Your task to perform on an android device: toggle priority inbox in the gmail app Image 0: 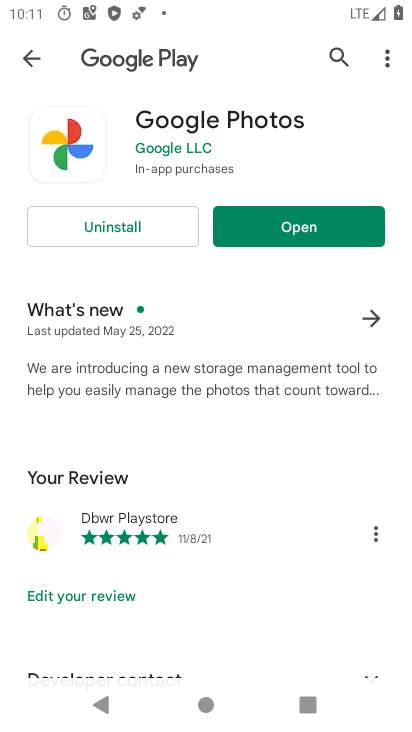
Step 0: press home button
Your task to perform on an android device: toggle priority inbox in the gmail app Image 1: 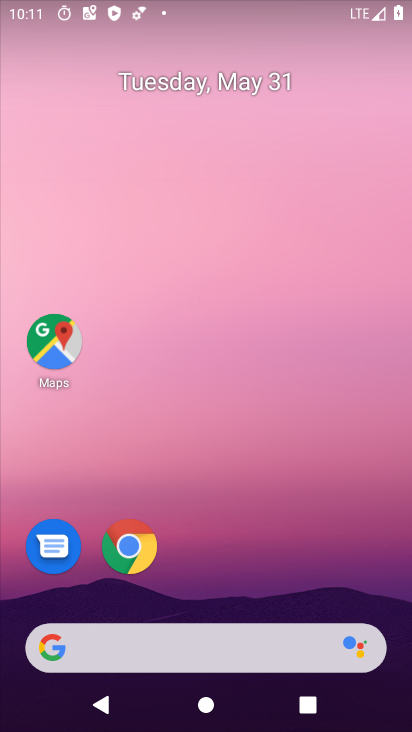
Step 1: drag from (247, 576) to (262, 129)
Your task to perform on an android device: toggle priority inbox in the gmail app Image 2: 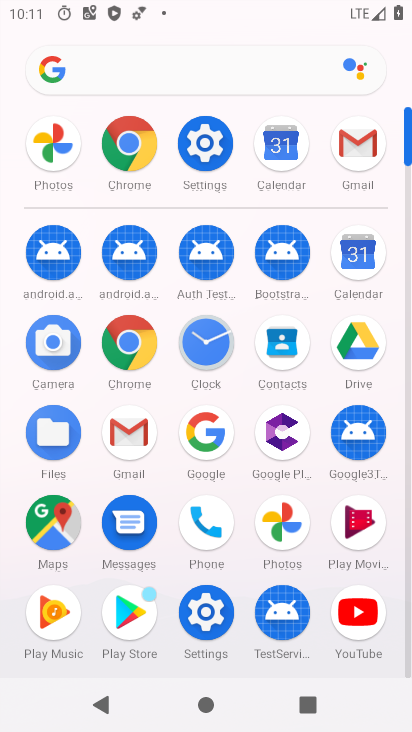
Step 2: click (355, 166)
Your task to perform on an android device: toggle priority inbox in the gmail app Image 3: 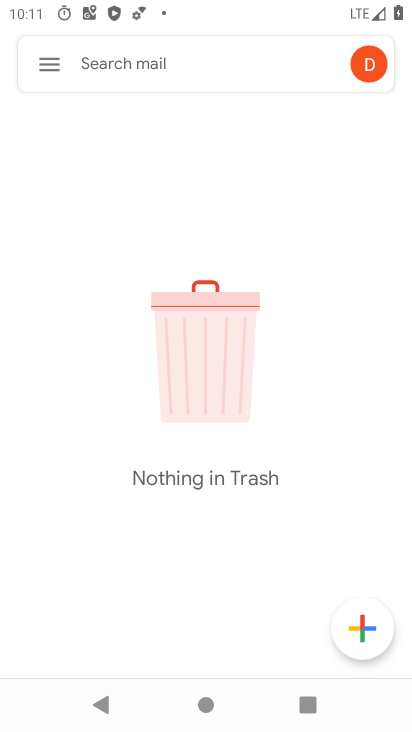
Step 3: click (52, 57)
Your task to perform on an android device: toggle priority inbox in the gmail app Image 4: 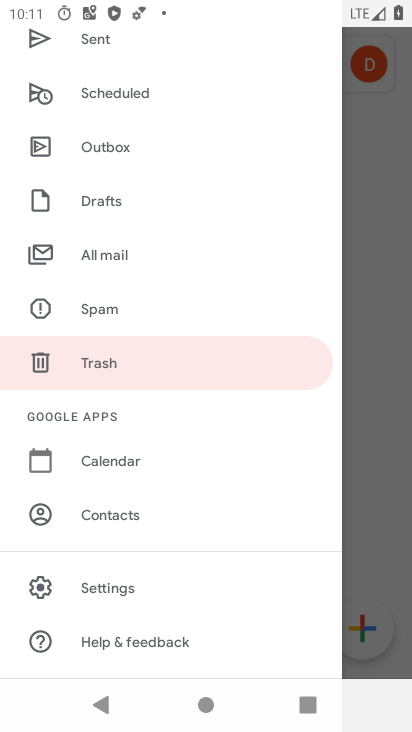
Step 4: click (84, 571)
Your task to perform on an android device: toggle priority inbox in the gmail app Image 5: 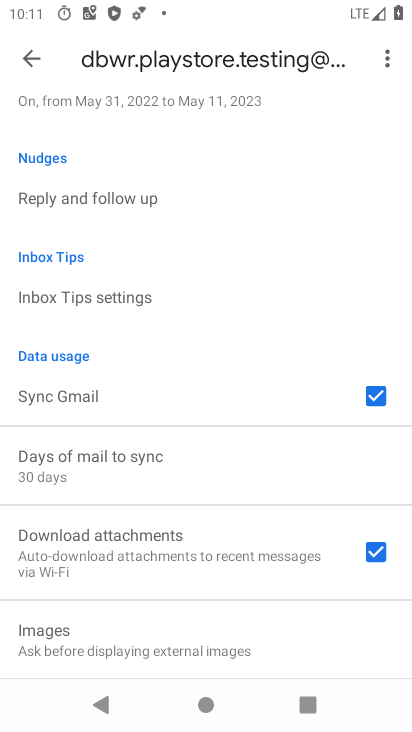
Step 5: drag from (170, 159) to (179, 429)
Your task to perform on an android device: toggle priority inbox in the gmail app Image 6: 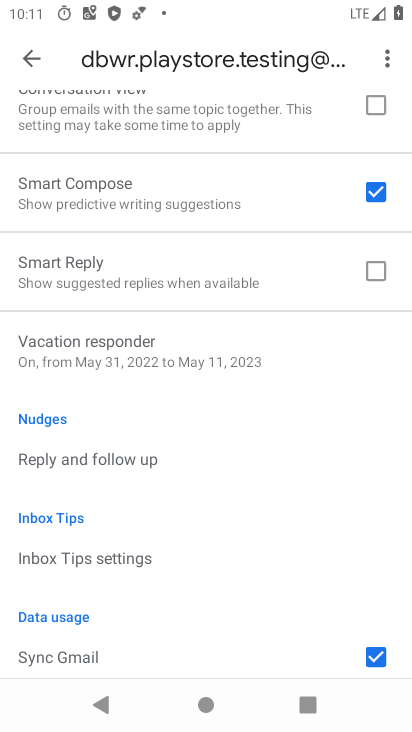
Step 6: drag from (251, 167) to (165, 640)
Your task to perform on an android device: toggle priority inbox in the gmail app Image 7: 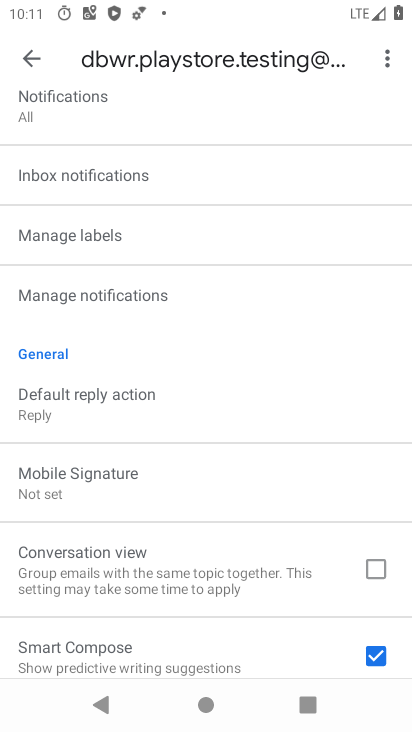
Step 7: drag from (207, 202) to (162, 680)
Your task to perform on an android device: toggle priority inbox in the gmail app Image 8: 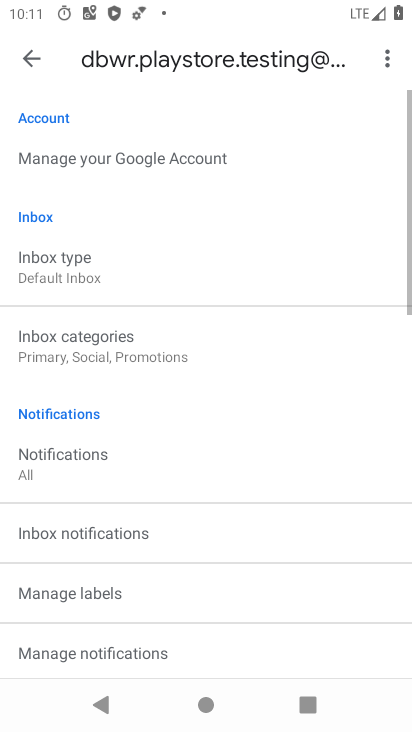
Step 8: drag from (204, 212) to (232, 683)
Your task to perform on an android device: toggle priority inbox in the gmail app Image 9: 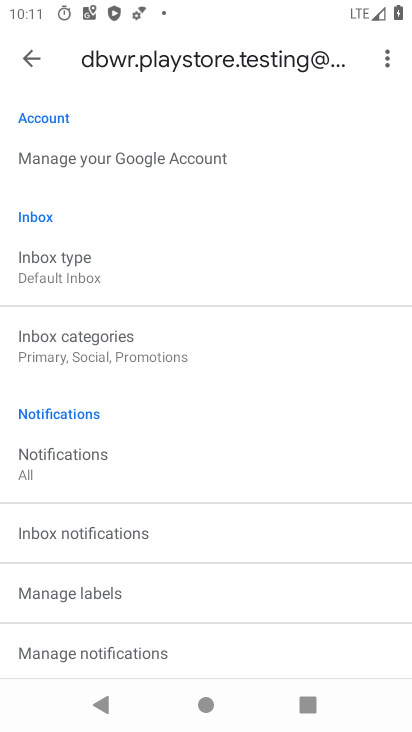
Step 9: click (92, 268)
Your task to perform on an android device: toggle priority inbox in the gmail app Image 10: 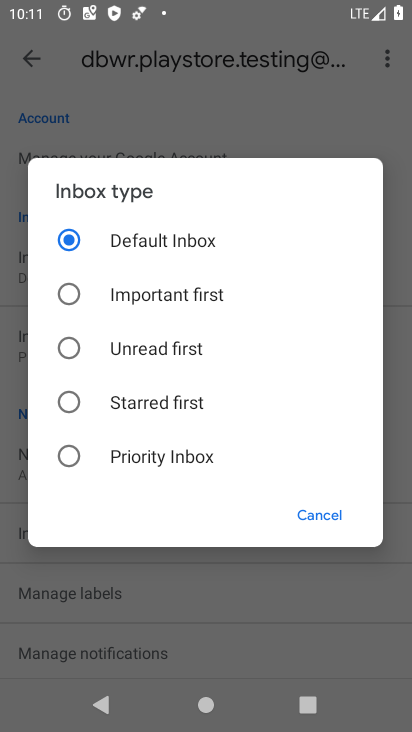
Step 10: click (134, 452)
Your task to perform on an android device: toggle priority inbox in the gmail app Image 11: 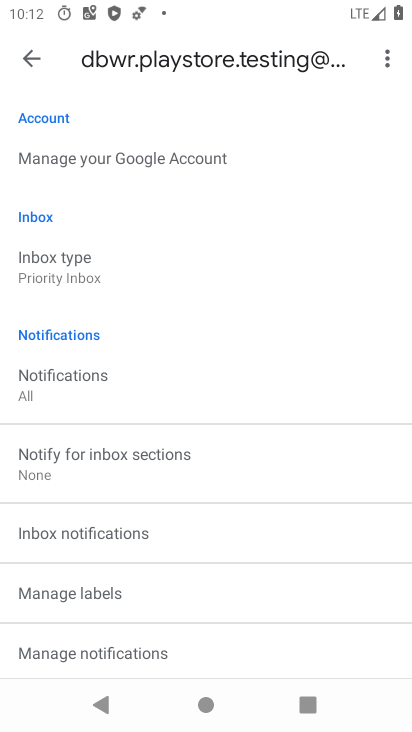
Step 11: task complete